Your task to perform on an android device: Search for macbook pro on costco, select the first entry, add it to the cart, then select checkout. Image 0: 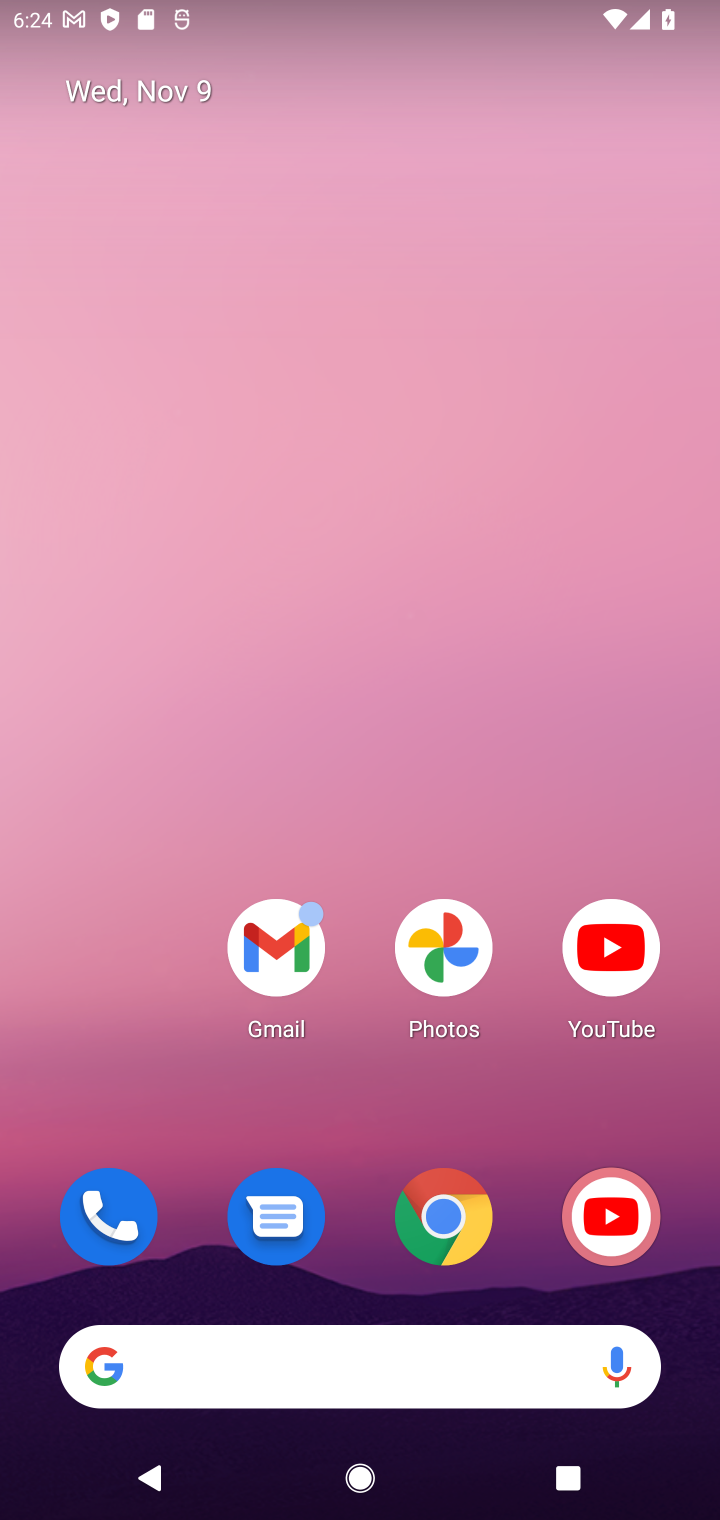
Step 0: drag from (379, 953) to (376, 80)
Your task to perform on an android device: Search for macbook pro on costco, select the first entry, add it to the cart, then select checkout. Image 1: 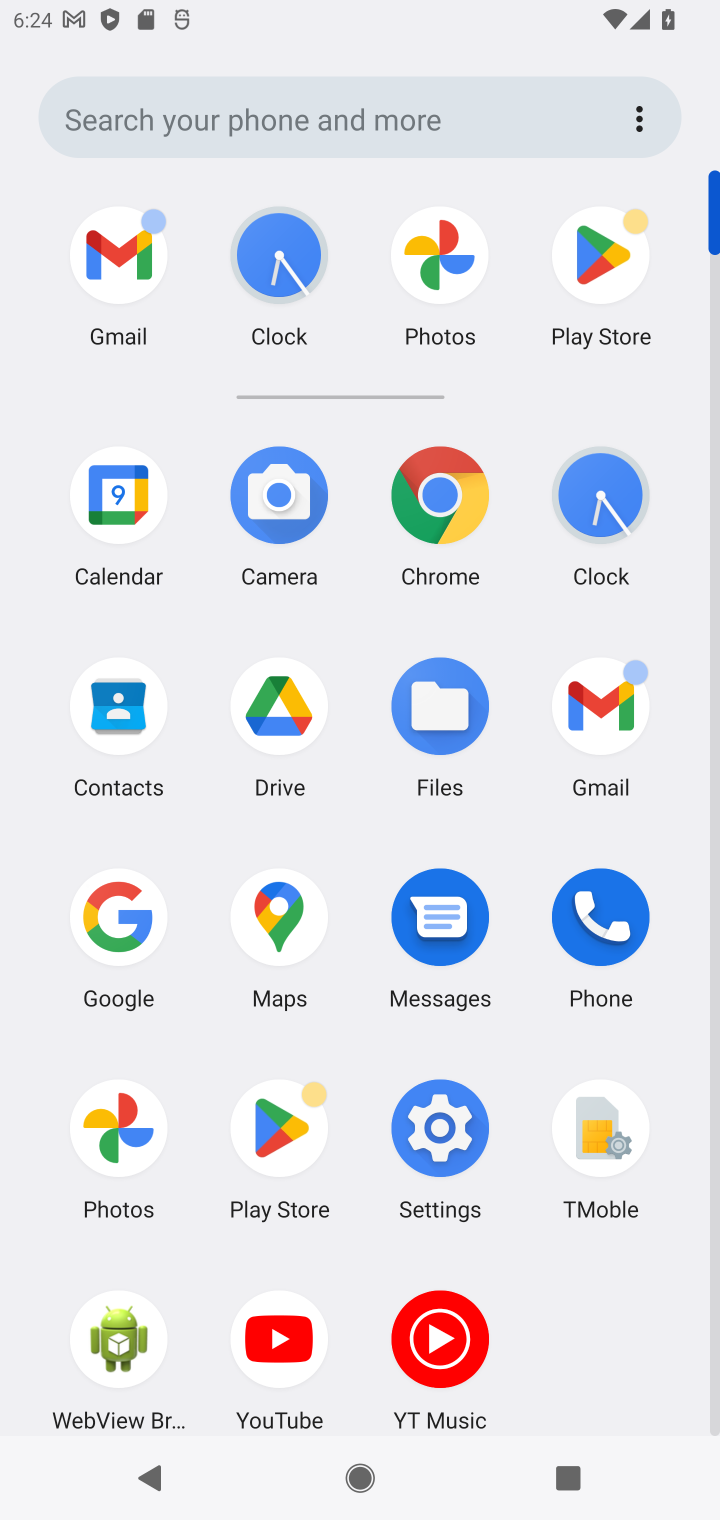
Step 1: click (435, 497)
Your task to perform on an android device: Search for macbook pro on costco, select the first entry, add it to the cart, then select checkout. Image 2: 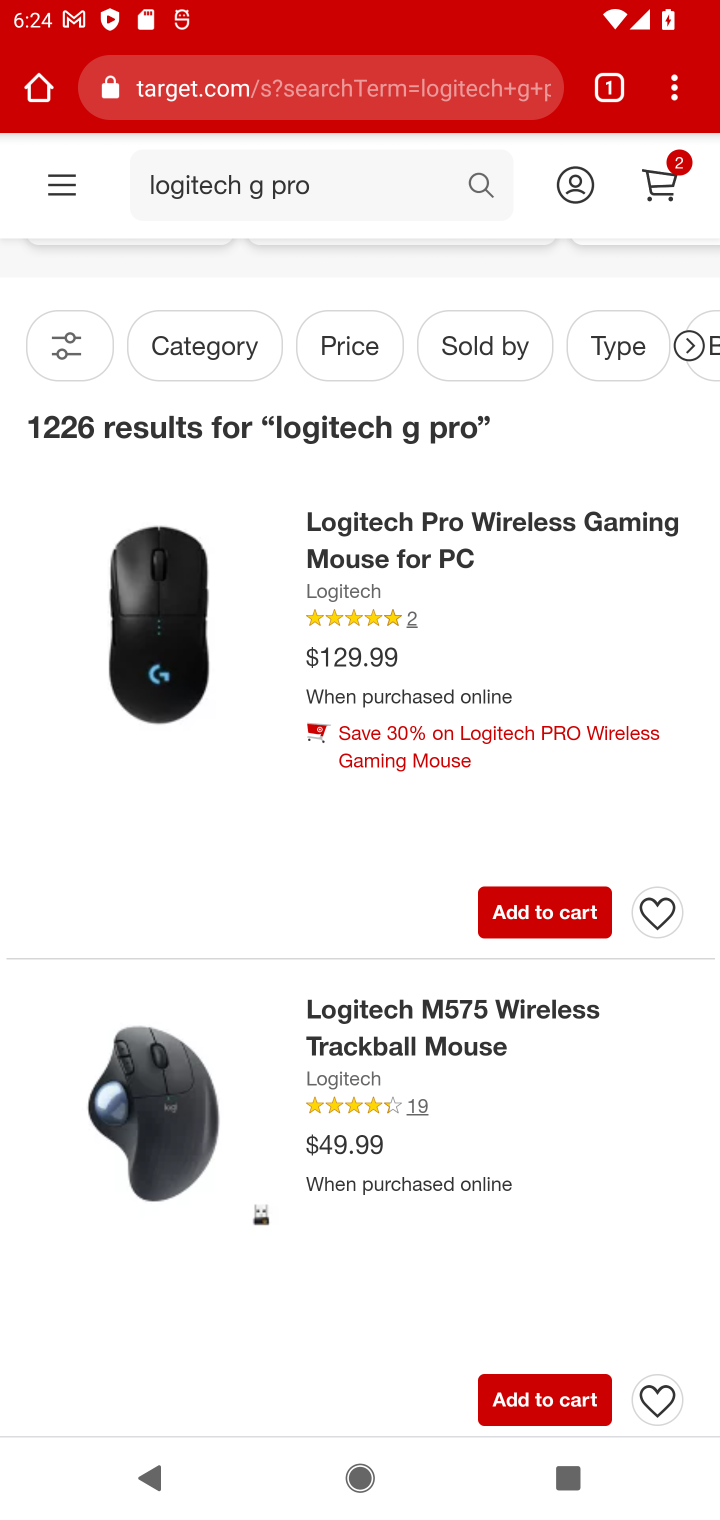
Step 2: click (378, 85)
Your task to perform on an android device: Search for macbook pro on costco, select the first entry, add it to the cart, then select checkout. Image 3: 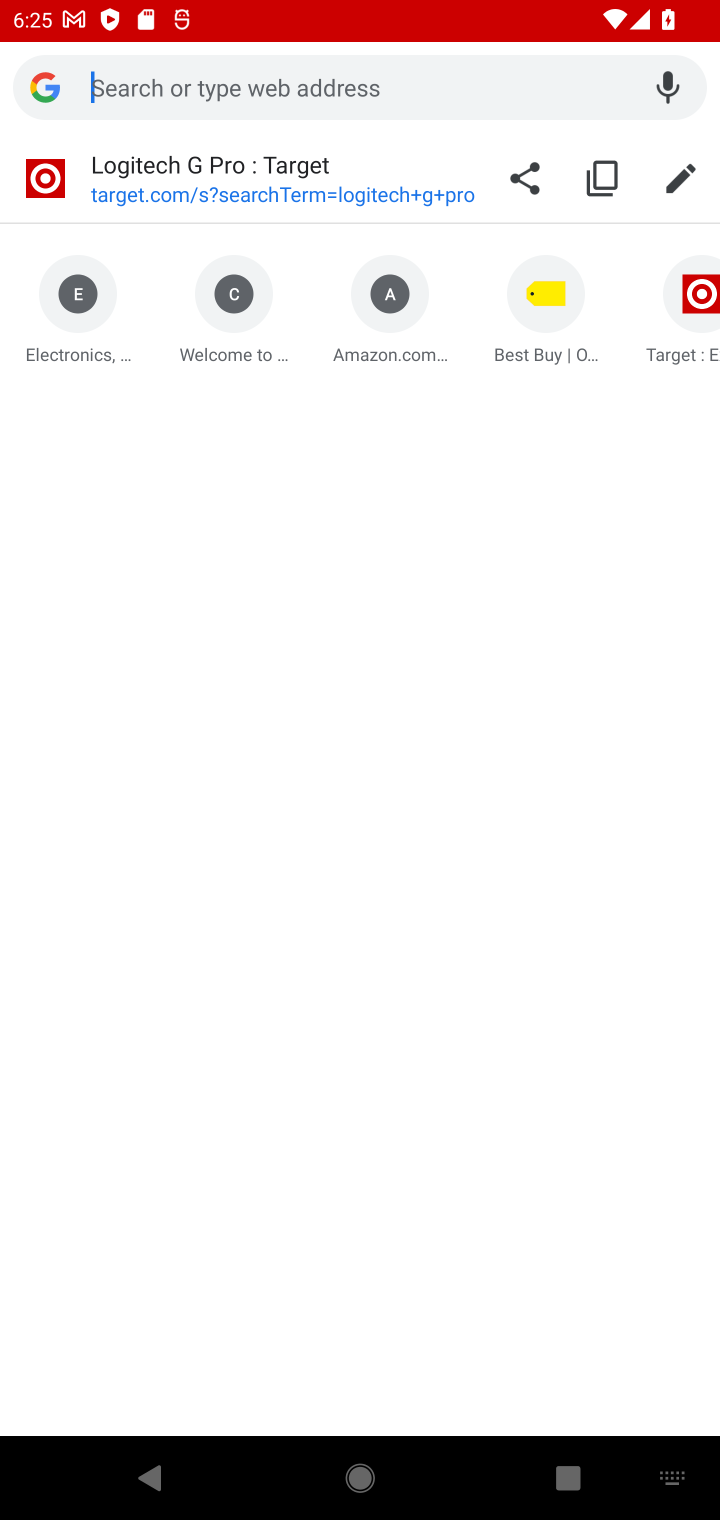
Step 3: type "costco.com"
Your task to perform on an android device: Search for macbook pro on costco, select the first entry, add it to the cart, then select checkout. Image 4: 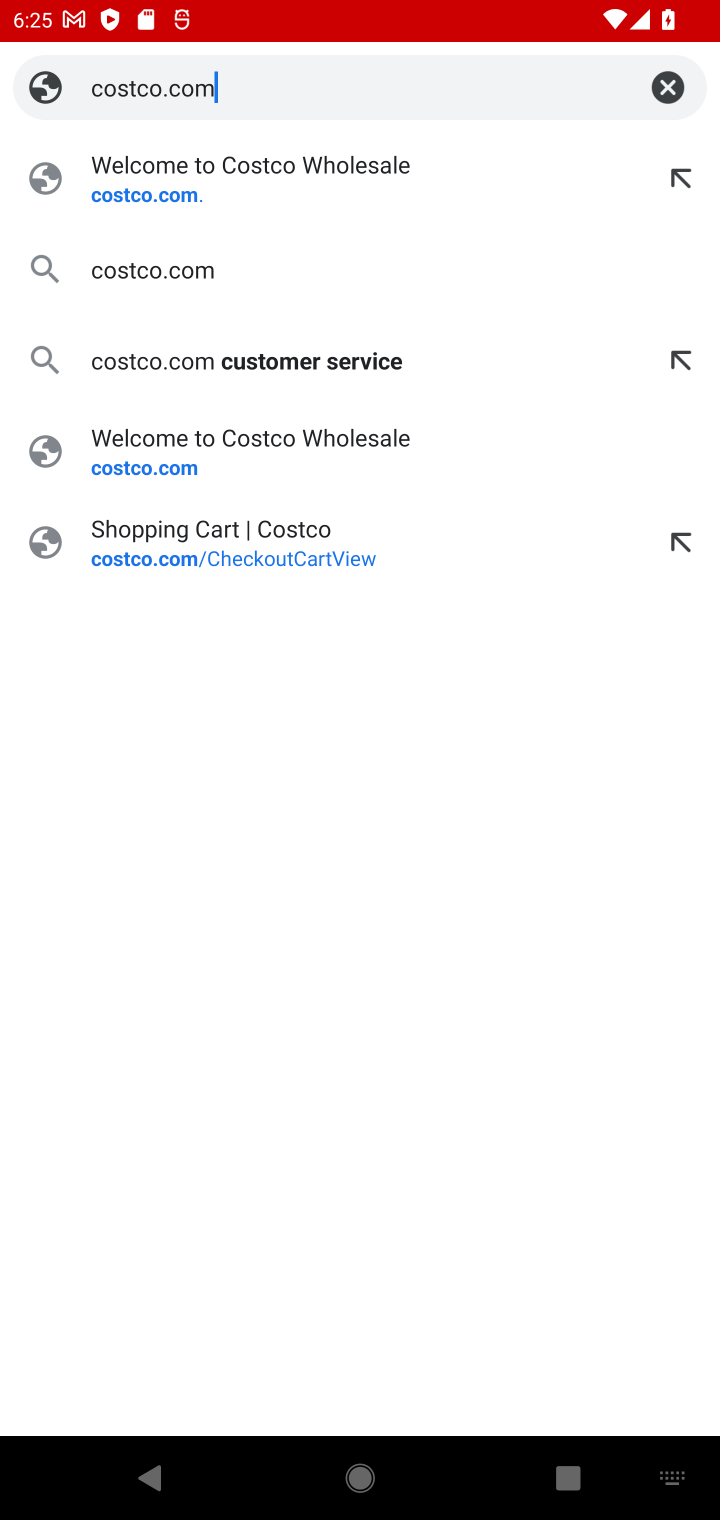
Step 4: press enter
Your task to perform on an android device: Search for macbook pro on costco, select the first entry, add it to the cart, then select checkout. Image 5: 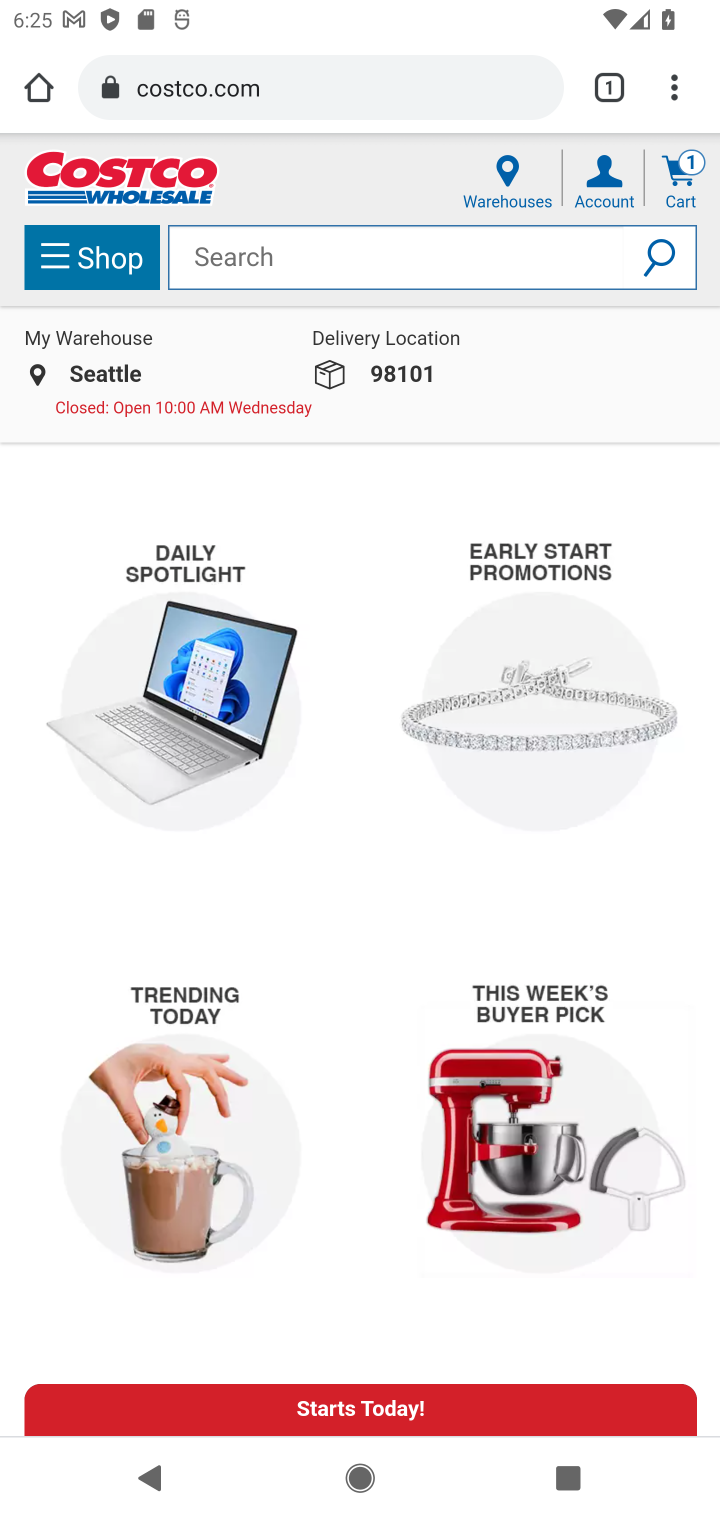
Step 5: click (490, 264)
Your task to perform on an android device: Search for macbook pro on costco, select the first entry, add it to the cart, then select checkout. Image 6: 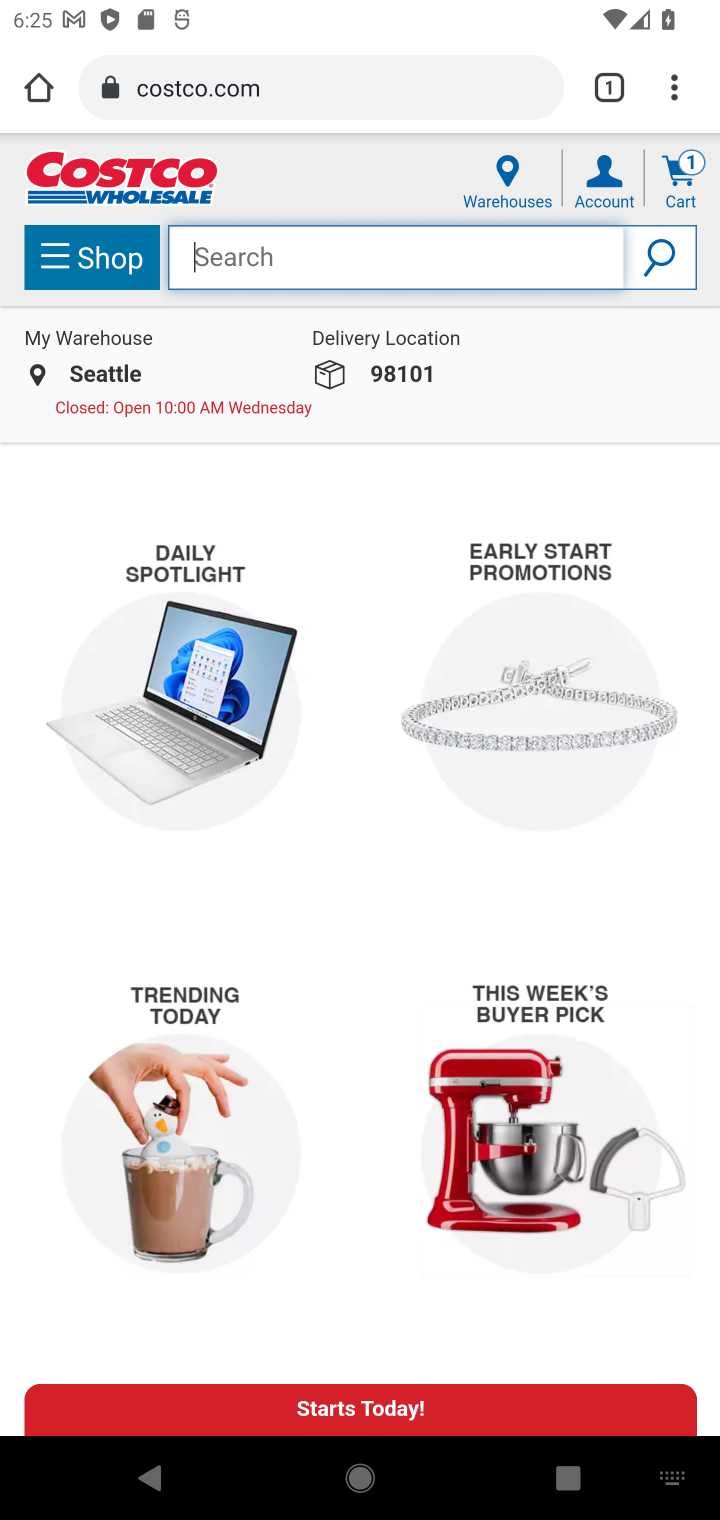
Step 6: type "macbook pro "
Your task to perform on an android device: Search for macbook pro on costco, select the first entry, add it to the cart, then select checkout. Image 7: 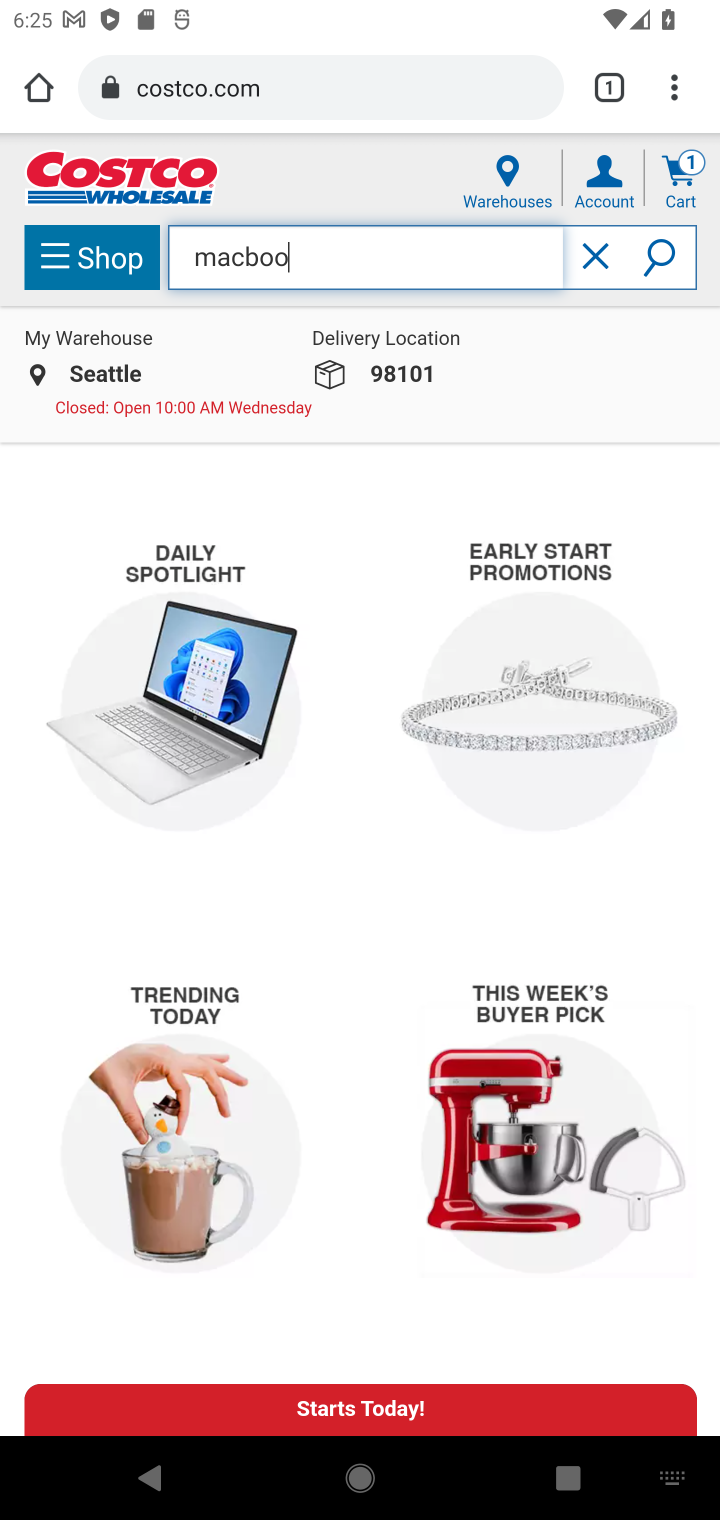
Step 7: press enter
Your task to perform on an android device: Search for macbook pro on costco, select the first entry, add it to the cart, then select checkout. Image 8: 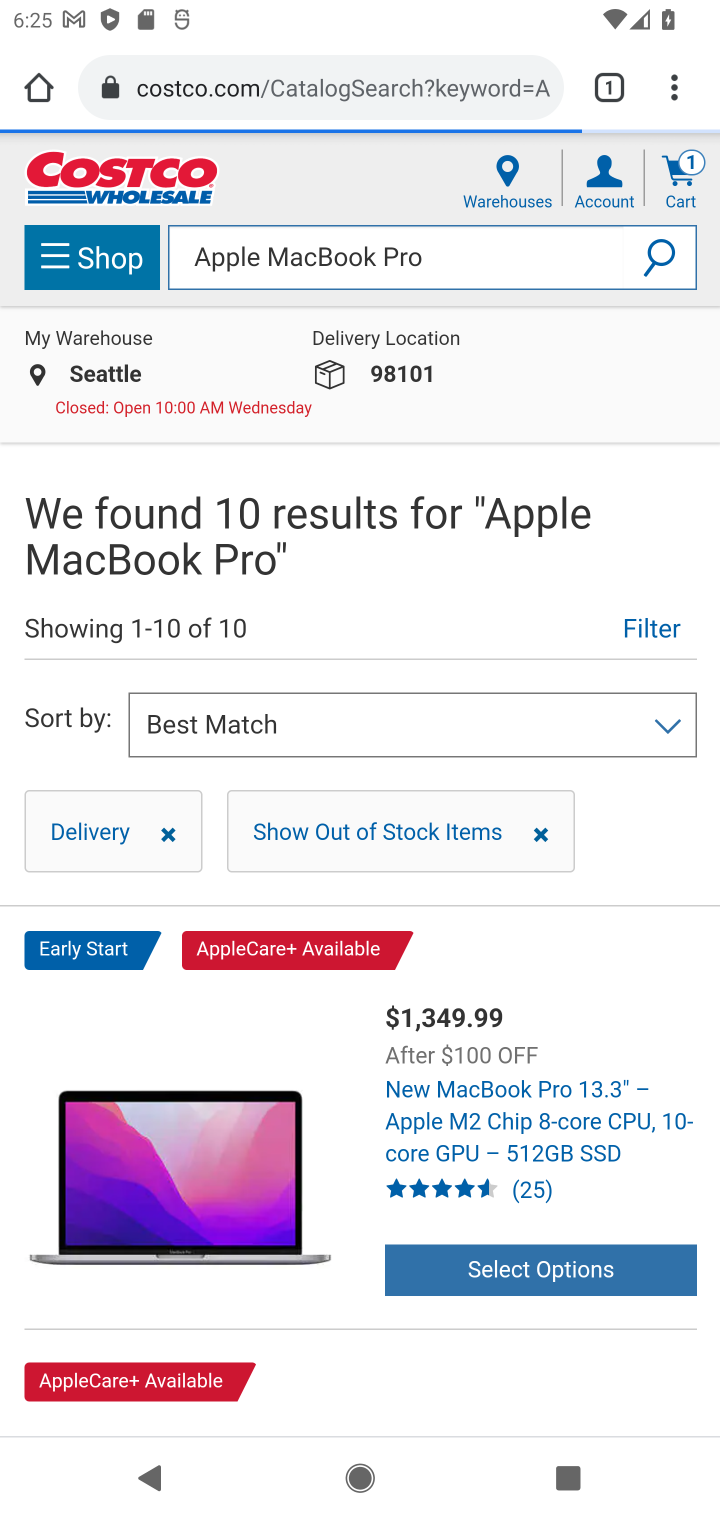
Step 8: drag from (543, 1094) to (512, 626)
Your task to perform on an android device: Search for macbook pro on costco, select the first entry, add it to the cart, then select checkout. Image 9: 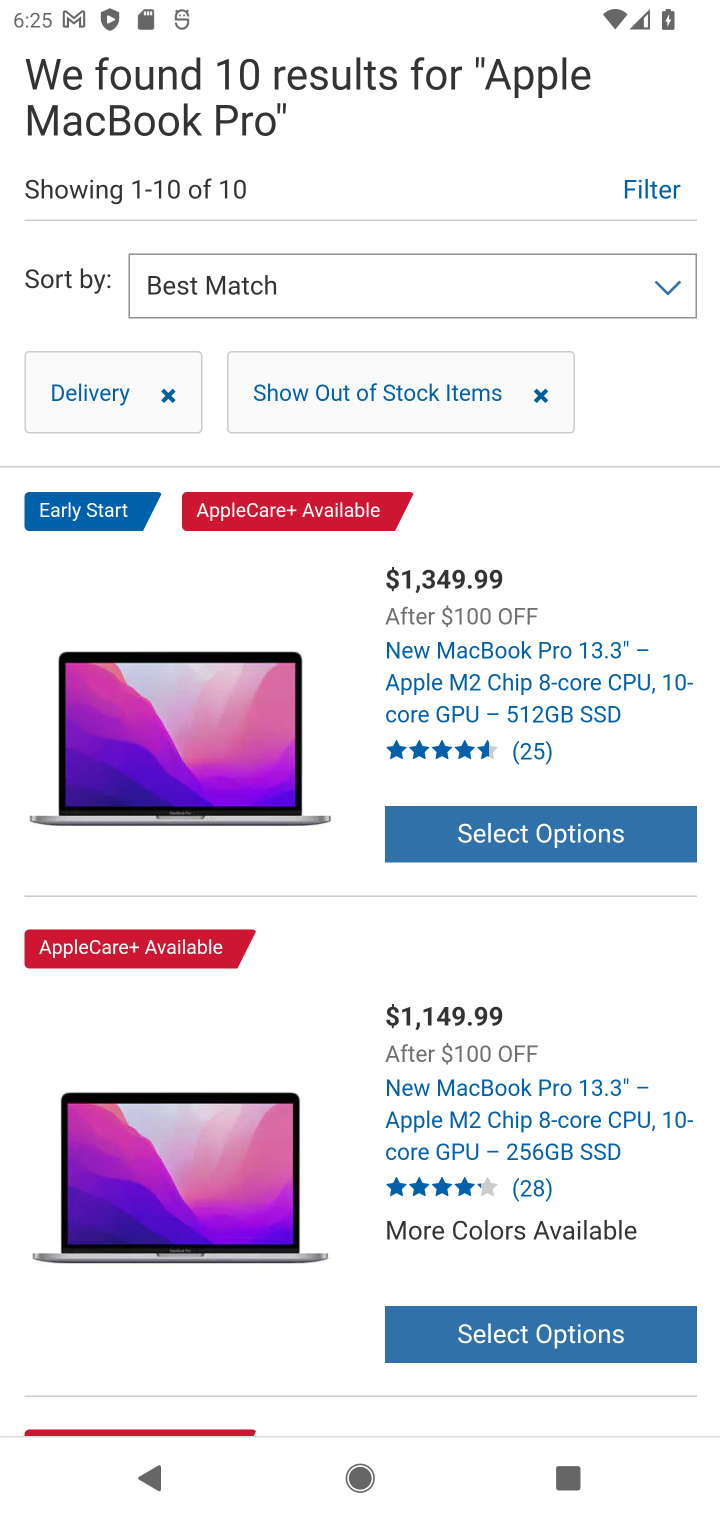
Step 9: click (454, 673)
Your task to perform on an android device: Search for macbook pro on costco, select the first entry, add it to the cart, then select checkout. Image 10: 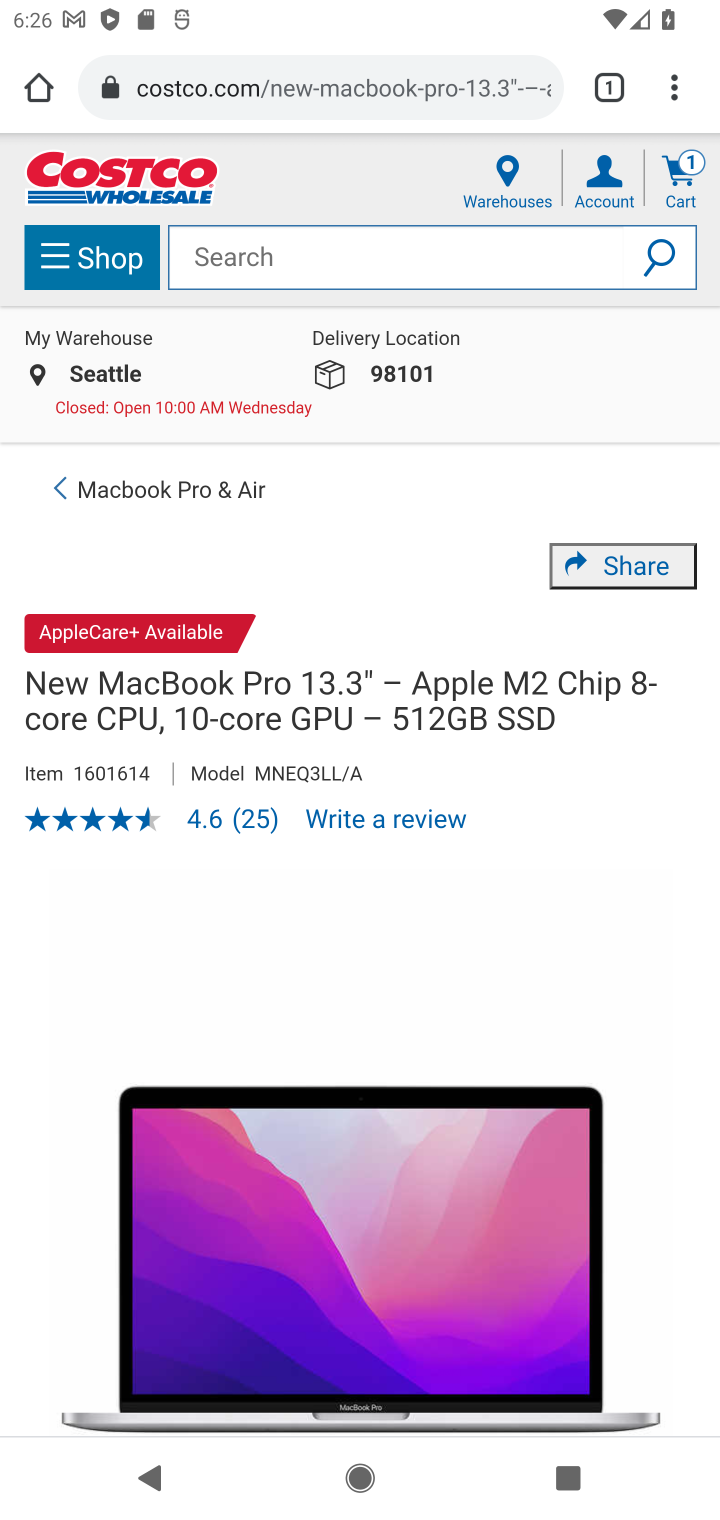
Step 10: drag from (251, 1178) to (305, 315)
Your task to perform on an android device: Search for macbook pro on costco, select the first entry, add it to the cart, then select checkout. Image 11: 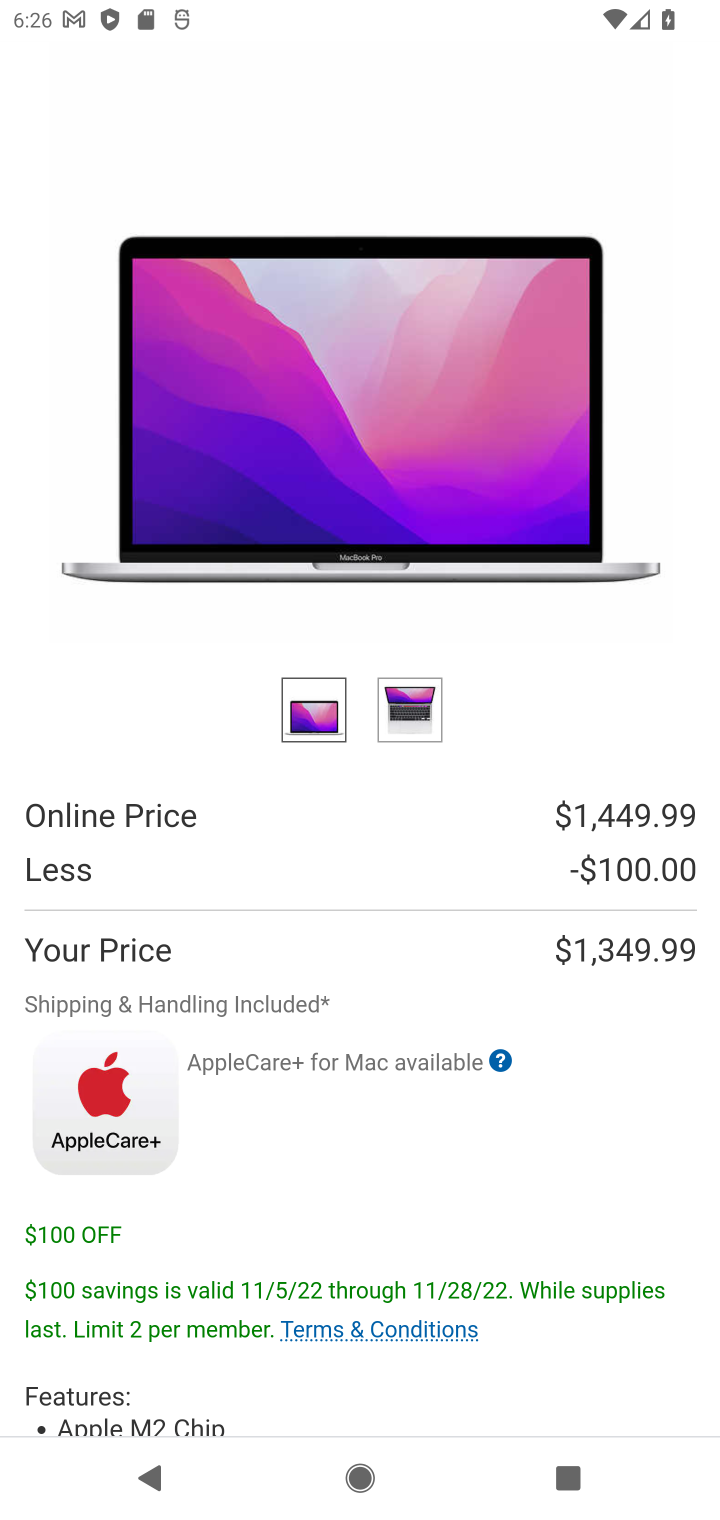
Step 11: drag from (369, 1033) to (490, 416)
Your task to perform on an android device: Search for macbook pro on costco, select the first entry, add it to the cart, then select checkout. Image 12: 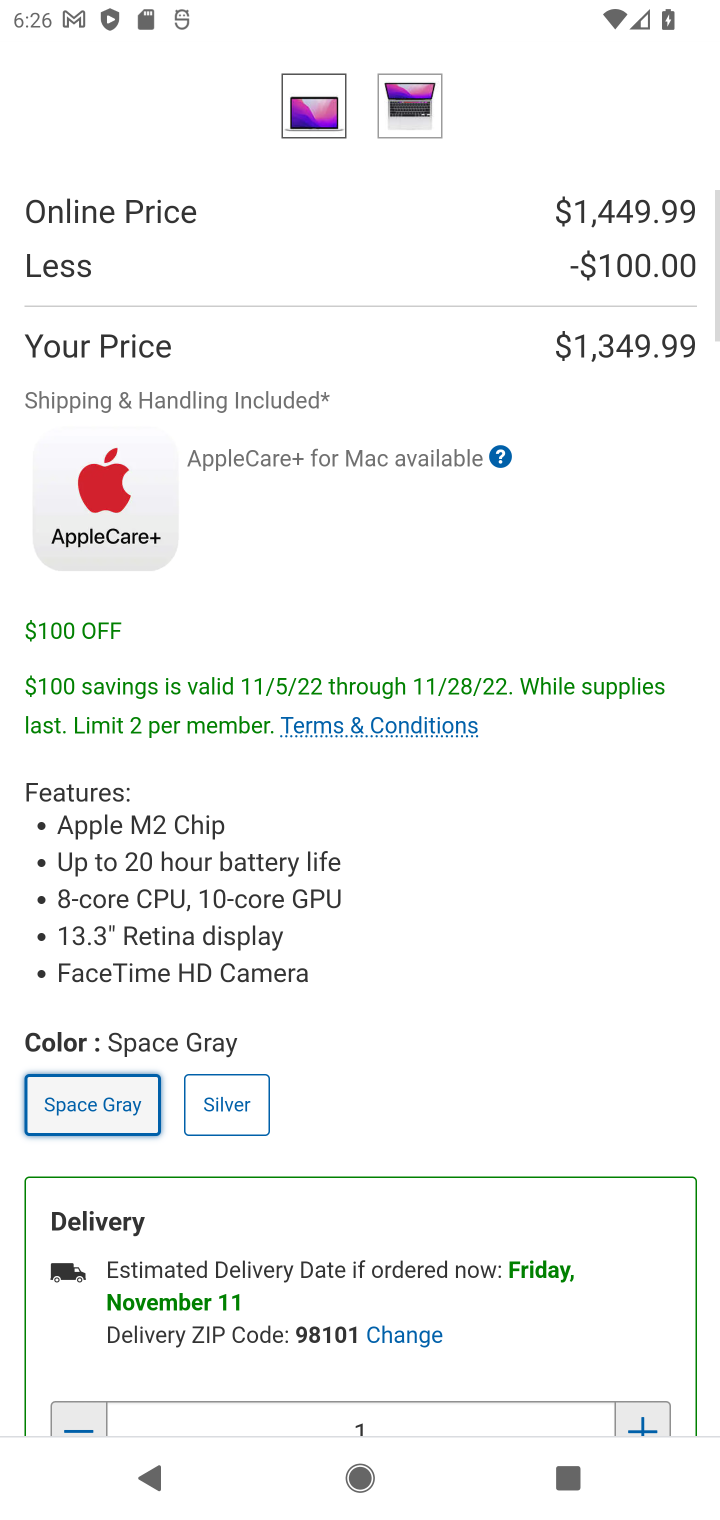
Step 12: drag from (379, 1109) to (410, 715)
Your task to perform on an android device: Search for macbook pro on costco, select the first entry, add it to the cart, then select checkout. Image 13: 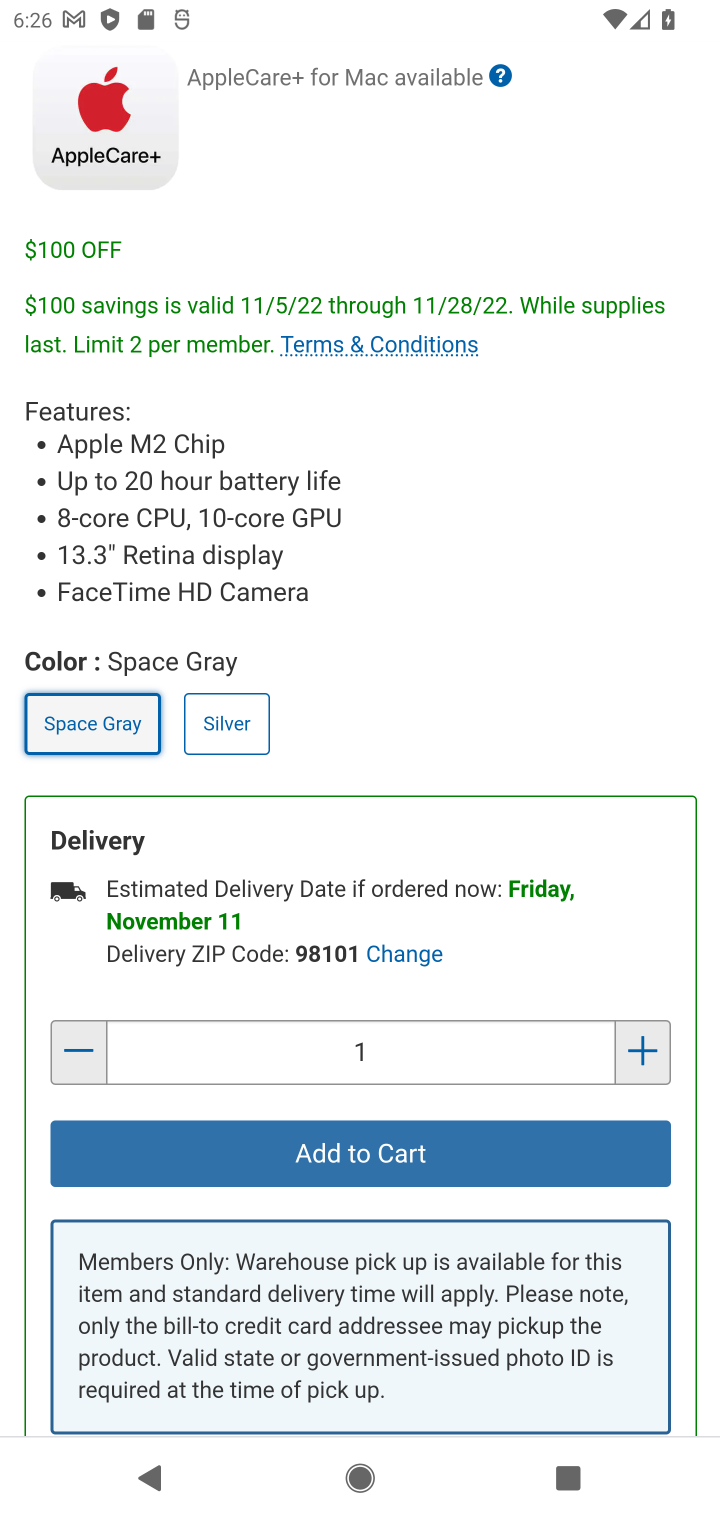
Step 13: click (449, 1149)
Your task to perform on an android device: Search for macbook pro on costco, select the first entry, add it to the cart, then select checkout. Image 14: 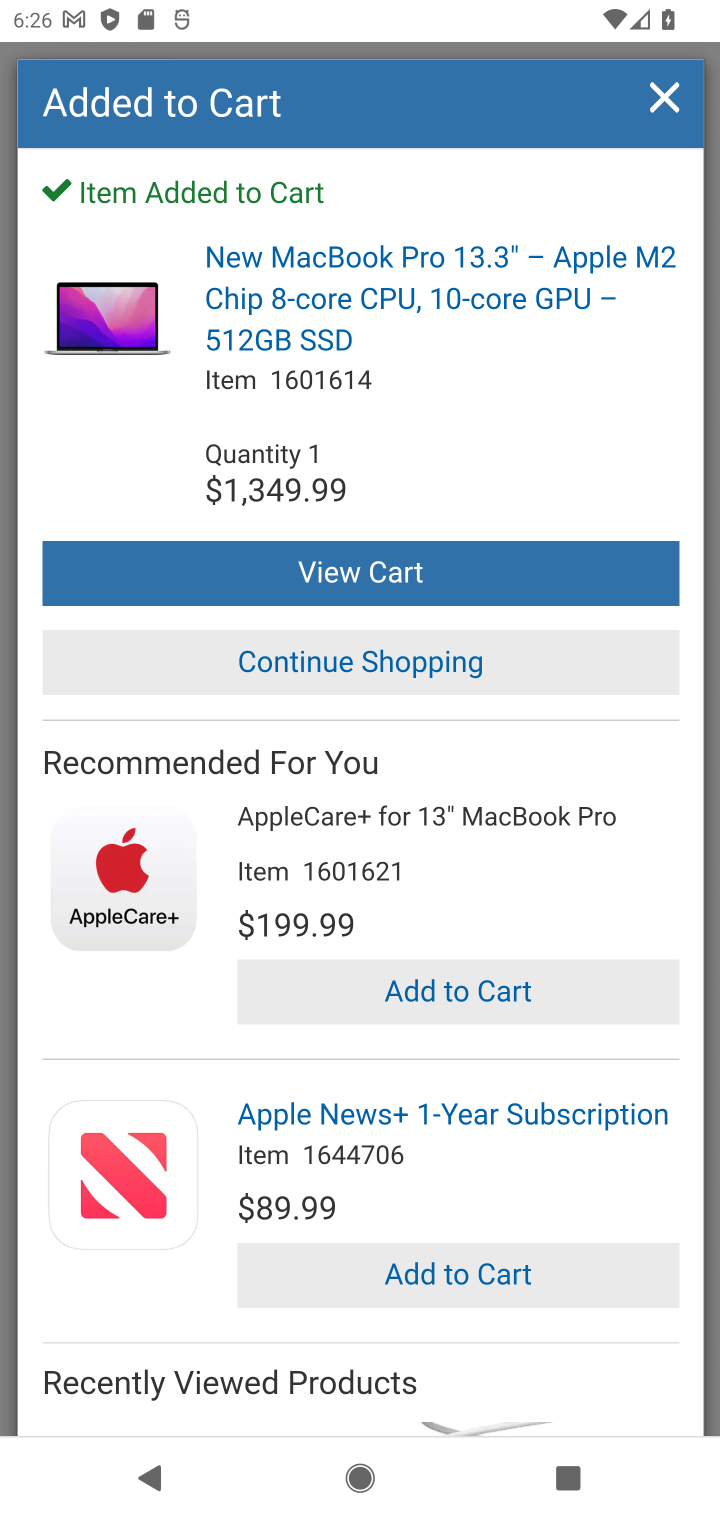
Step 14: click (670, 109)
Your task to perform on an android device: Search for macbook pro on costco, select the first entry, add it to the cart, then select checkout. Image 15: 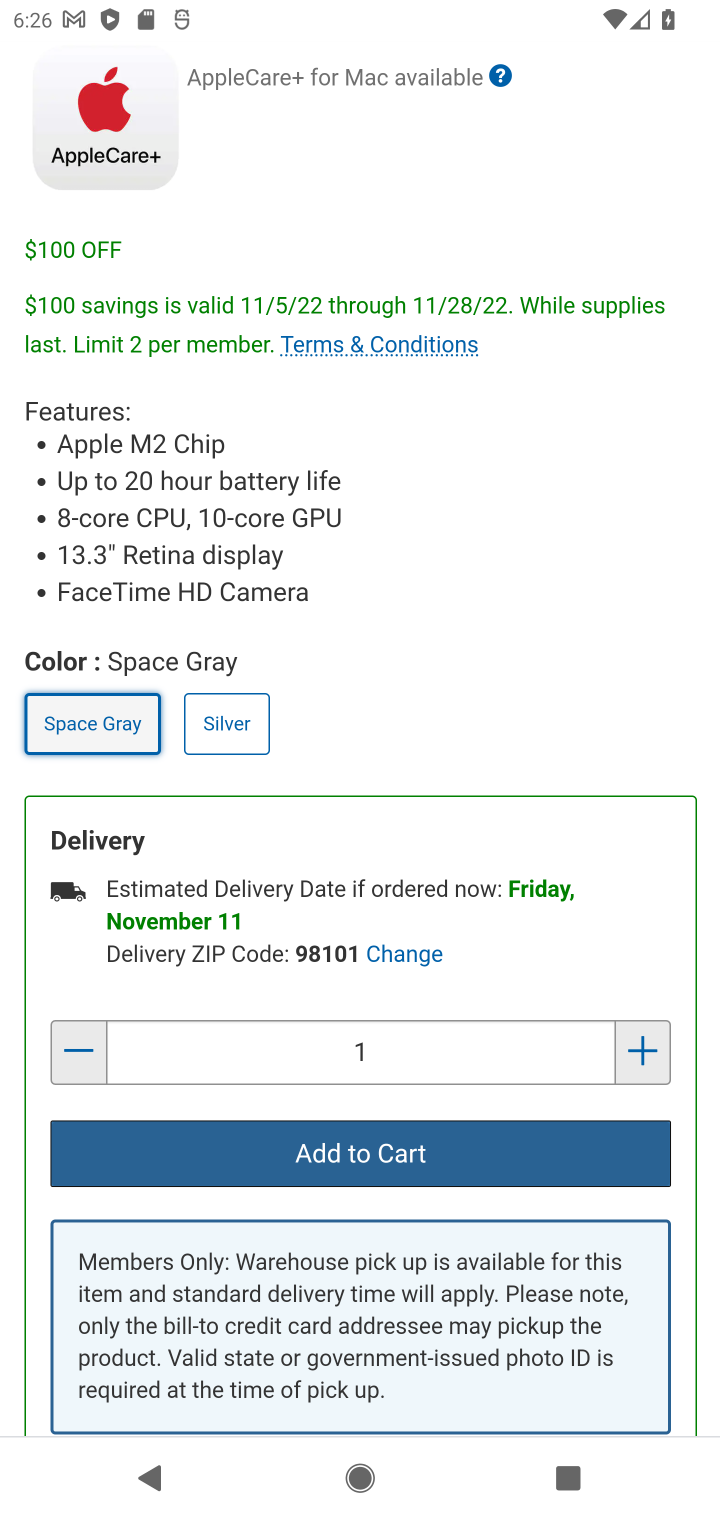
Step 15: drag from (483, 624) to (571, 1504)
Your task to perform on an android device: Search for macbook pro on costco, select the first entry, add it to the cart, then select checkout. Image 16: 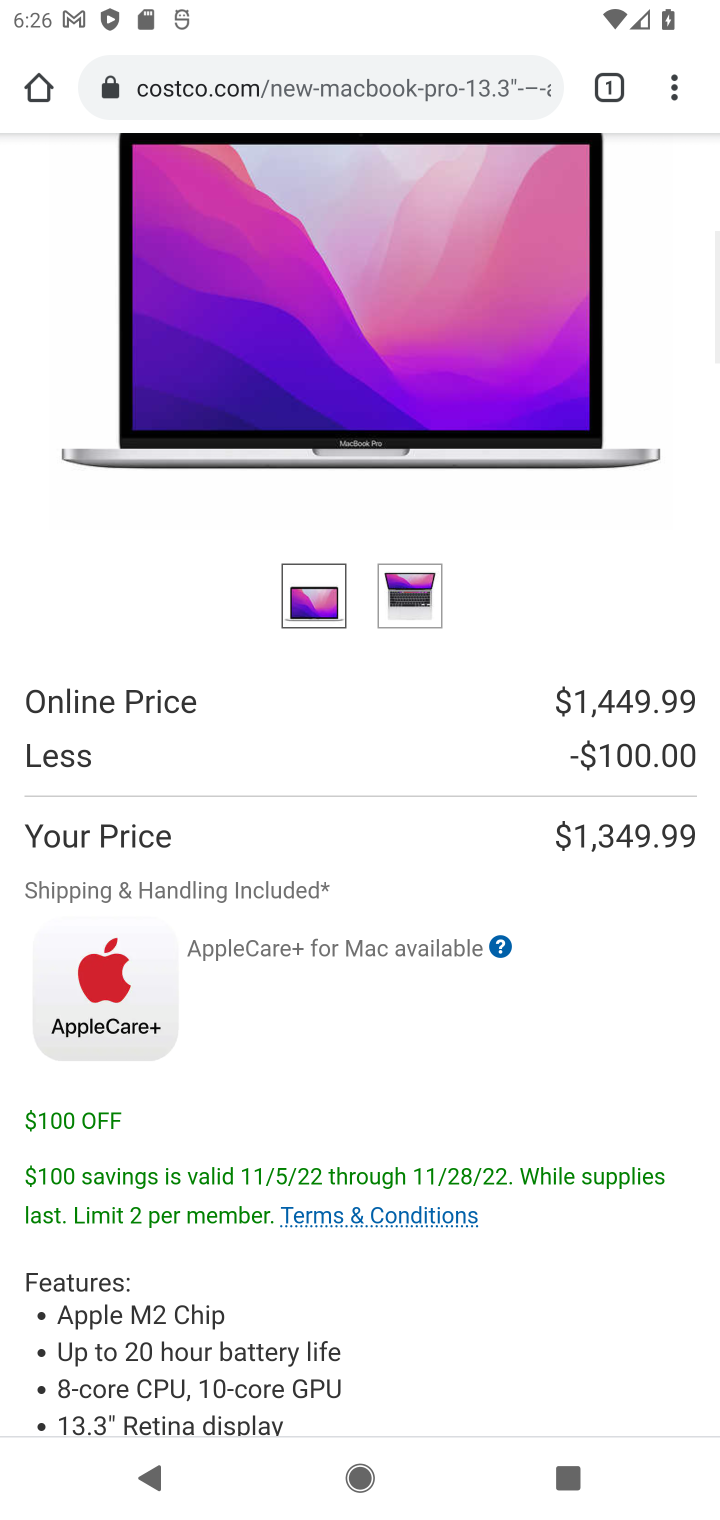
Step 16: drag from (571, 426) to (508, 1346)
Your task to perform on an android device: Search for macbook pro on costco, select the first entry, add it to the cart, then select checkout. Image 17: 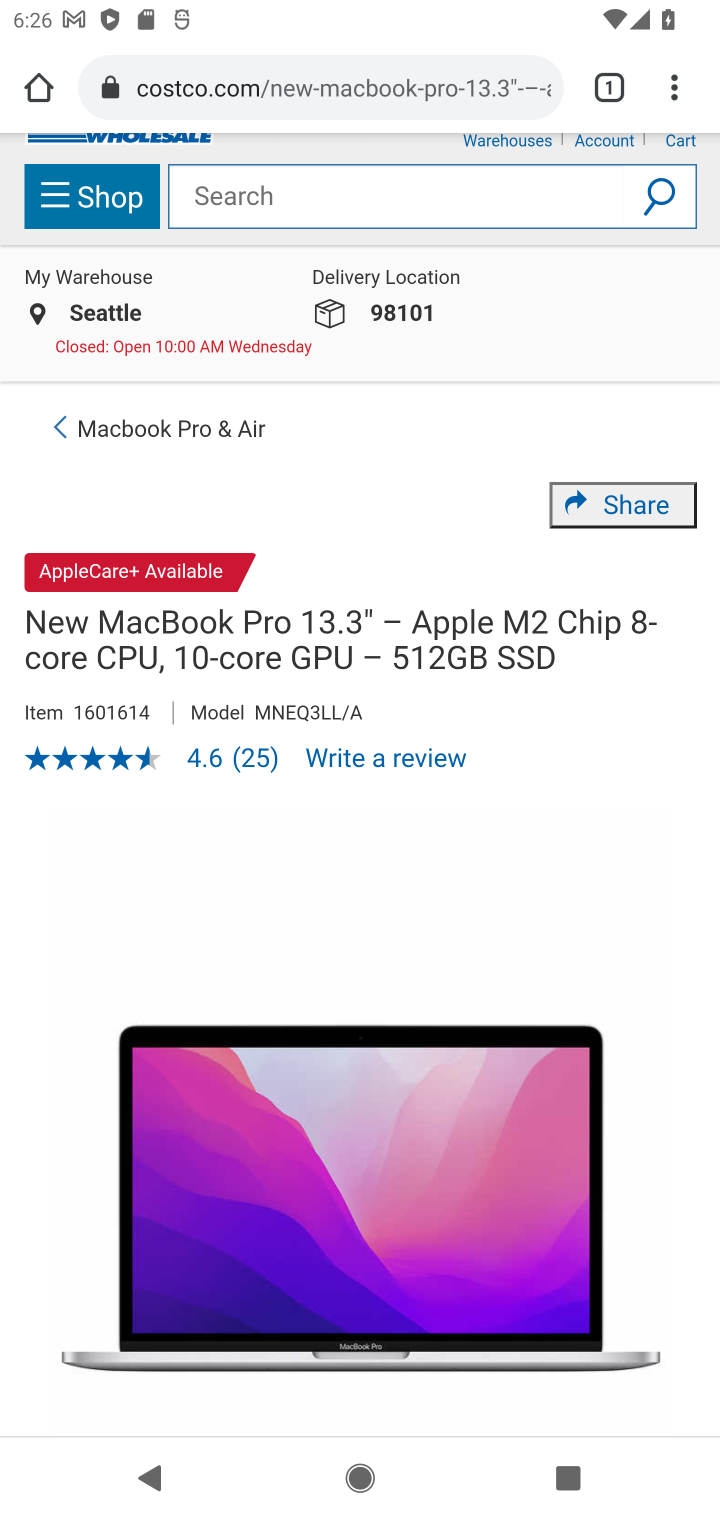
Step 17: drag from (422, 543) to (560, 1227)
Your task to perform on an android device: Search for macbook pro on costco, select the first entry, add it to the cart, then select checkout. Image 18: 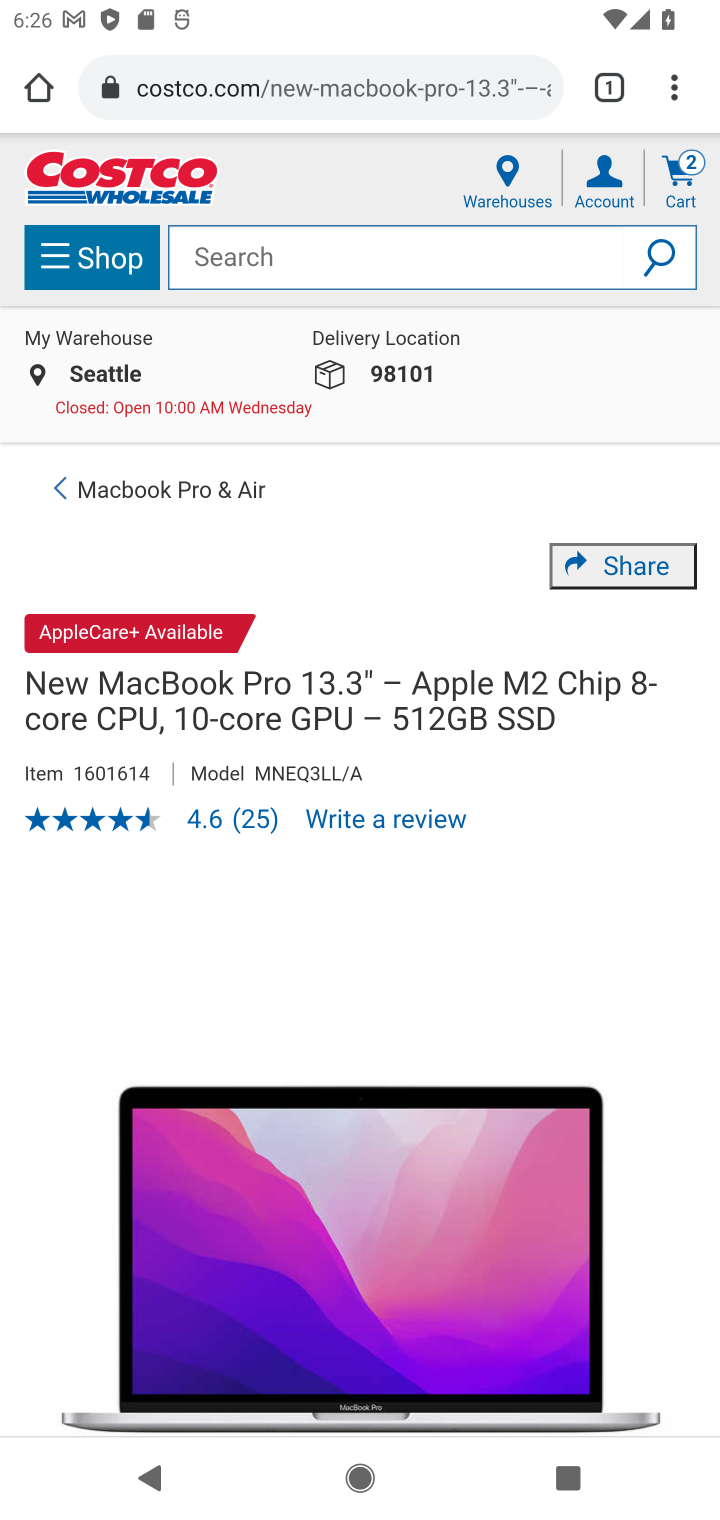
Step 18: click (678, 174)
Your task to perform on an android device: Search for macbook pro on costco, select the first entry, add it to the cart, then select checkout. Image 19: 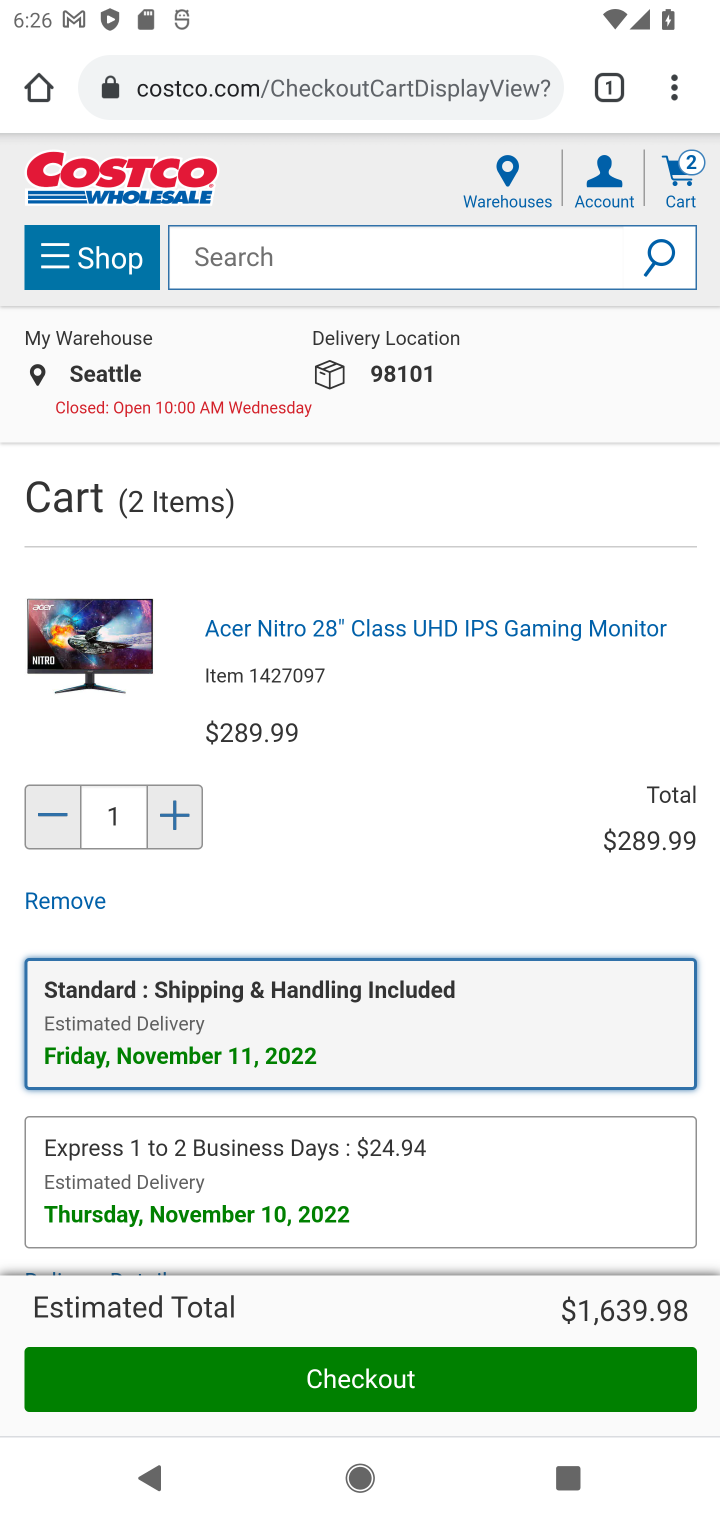
Step 19: click (452, 1380)
Your task to perform on an android device: Search for macbook pro on costco, select the first entry, add it to the cart, then select checkout. Image 20: 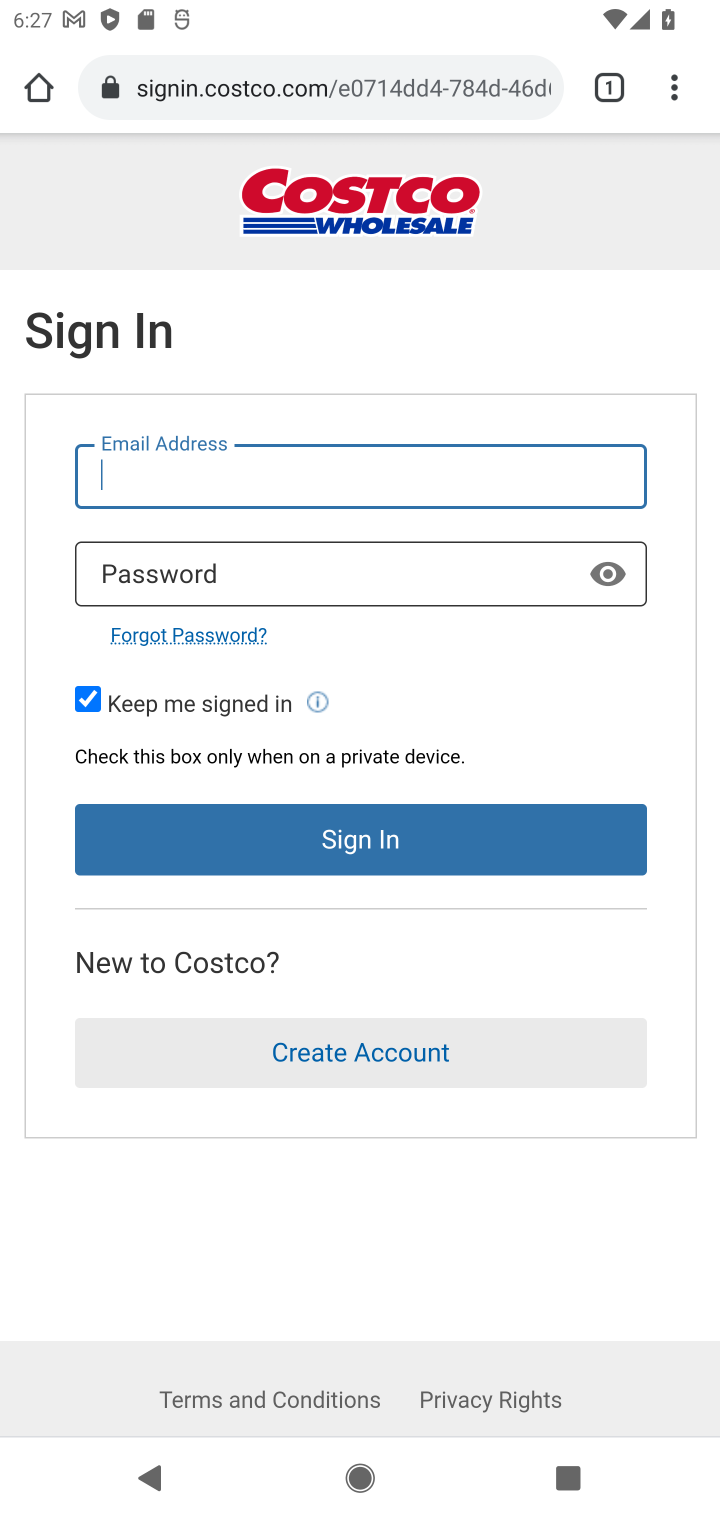
Step 20: task complete